Your task to perform on an android device: Open Wikipedia Image 0: 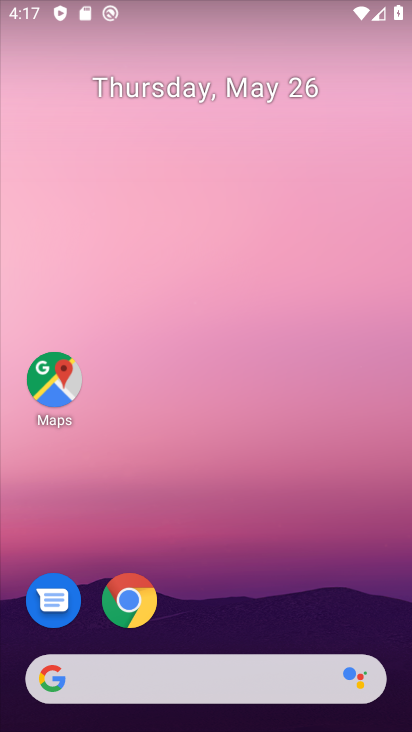
Step 0: click (131, 595)
Your task to perform on an android device: Open Wikipedia Image 1: 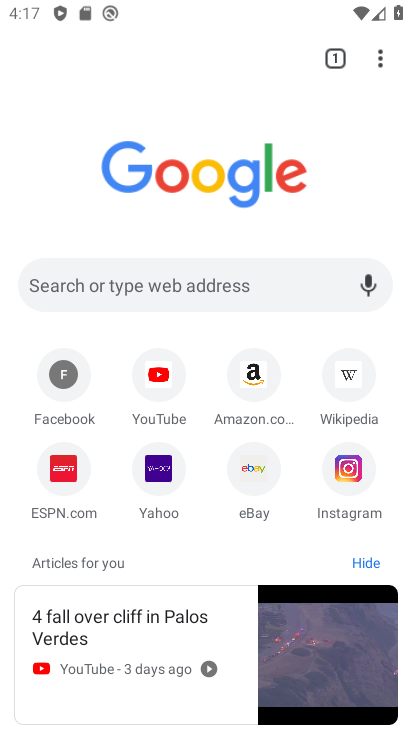
Step 1: click (344, 385)
Your task to perform on an android device: Open Wikipedia Image 2: 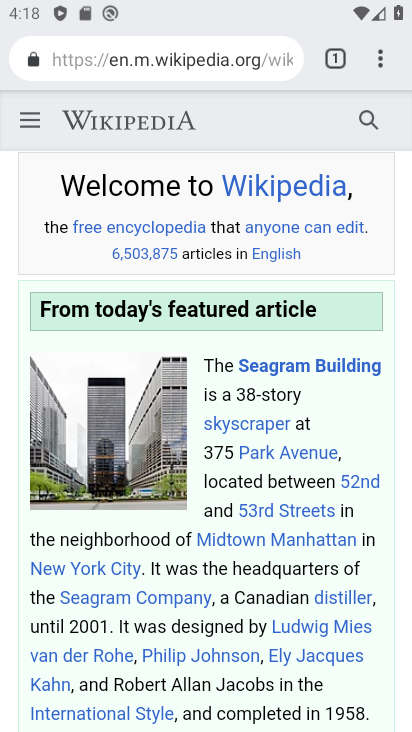
Step 2: task complete